Your task to perform on an android device: toggle improve location accuracy Image 0: 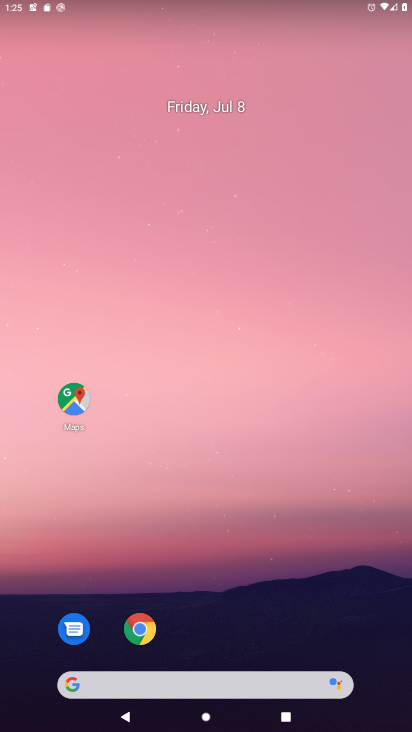
Step 0: drag from (262, 641) to (283, 4)
Your task to perform on an android device: toggle improve location accuracy Image 1: 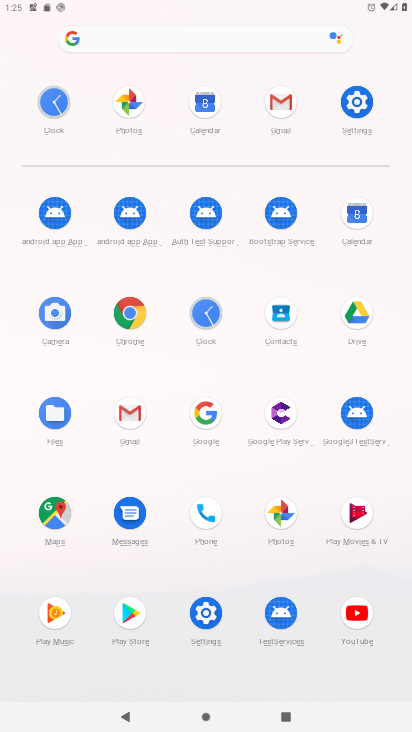
Step 1: click (362, 112)
Your task to perform on an android device: toggle improve location accuracy Image 2: 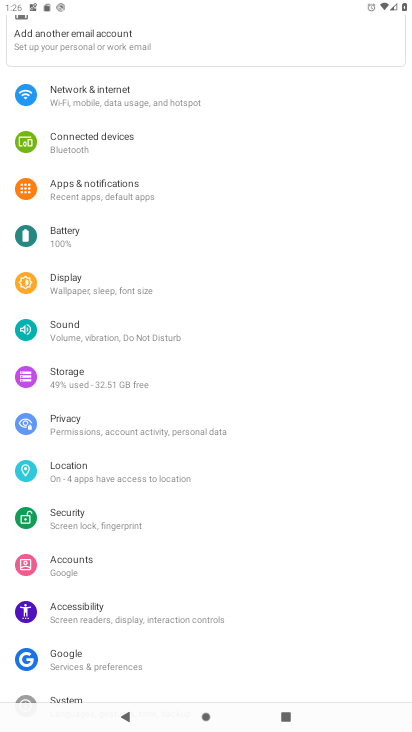
Step 2: click (127, 466)
Your task to perform on an android device: toggle improve location accuracy Image 3: 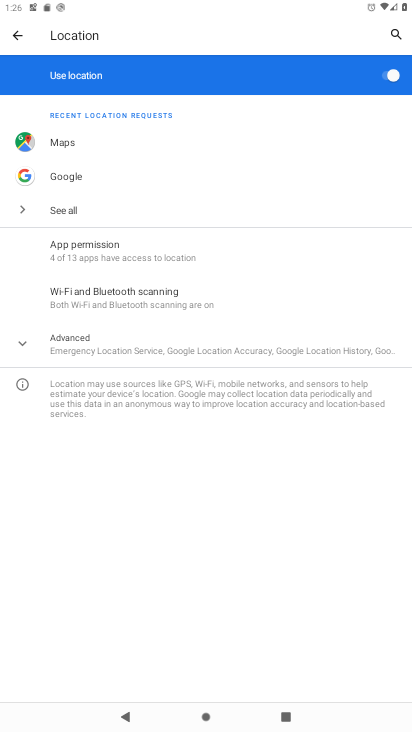
Step 3: click (138, 340)
Your task to perform on an android device: toggle improve location accuracy Image 4: 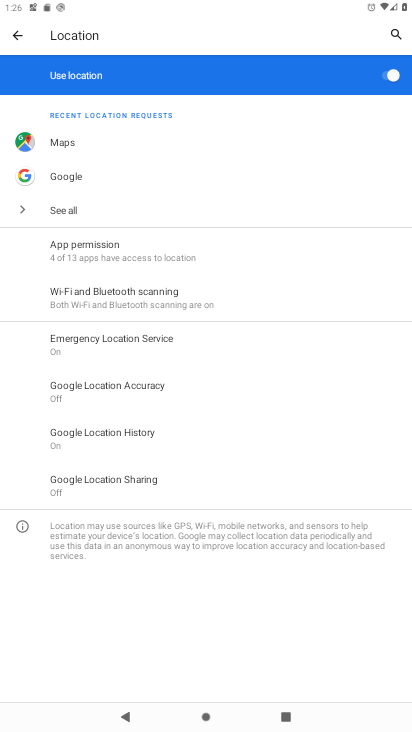
Step 4: click (110, 389)
Your task to perform on an android device: toggle improve location accuracy Image 5: 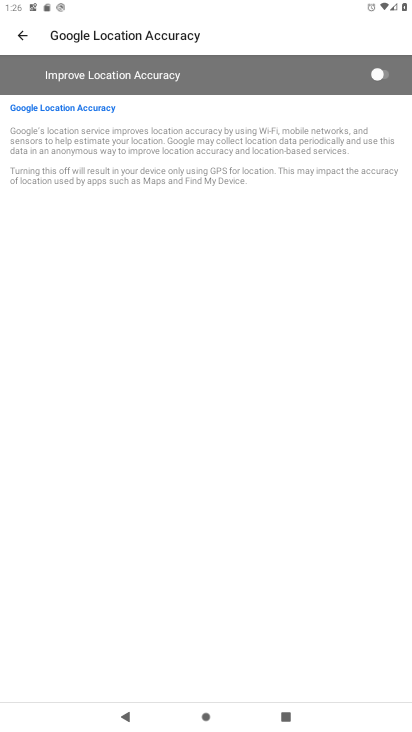
Step 5: click (381, 68)
Your task to perform on an android device: toggle improve location accuracy Image 6: 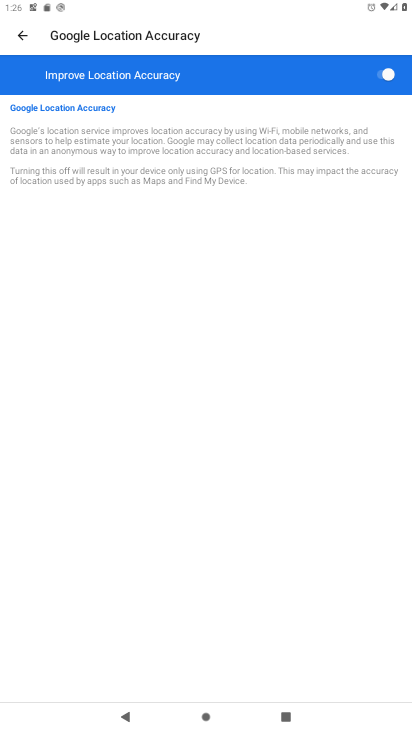
Step 6: task complete